Your task to perform on an android device: Open location settings Image 0: 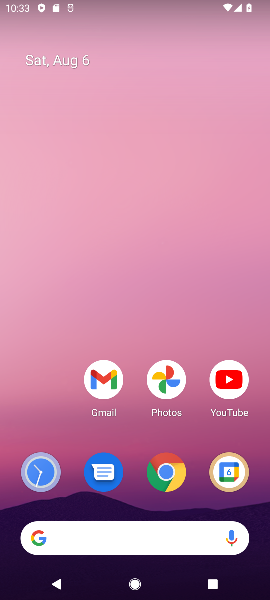
Step 0: drag from (163, 519) to (119, 103)
Your task to perform on an android device: Open location settings Image 1: 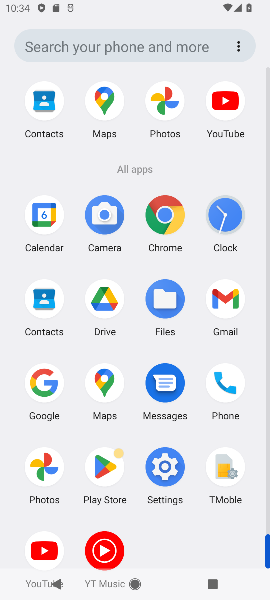
Step 1: click (166, 460)
Your task to perform on an android device: Open location settings Image 2: 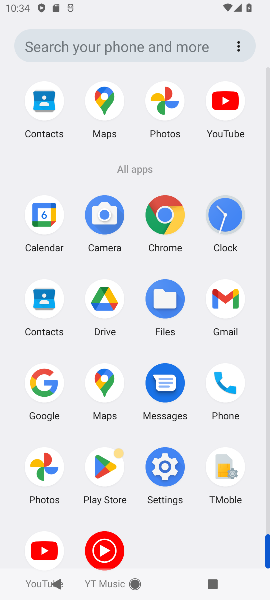
Step 2: click (164, 467)
Your task to perform on an android device: Open location settings Image 3: 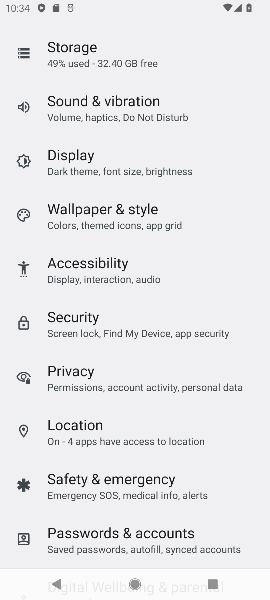
Step 3: click (81, 431)
Your task to perform on an android device: Open location settings Image 4: 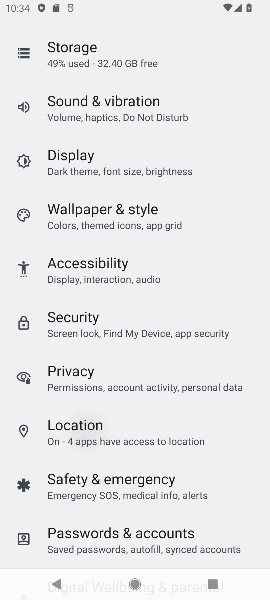
Step 4: click (81, 431)
Your task to perform on an android device: Open location settings Image 5: 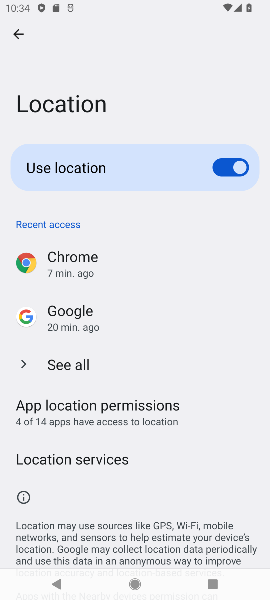
Step 5: click (81, 431)
Your task to perform on an android device: Open location settings Image 6: 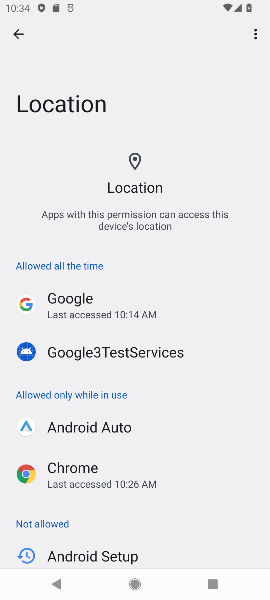
Step 6: click (18, 38)
Your task to perform on an android device: Open location settings Image 7: 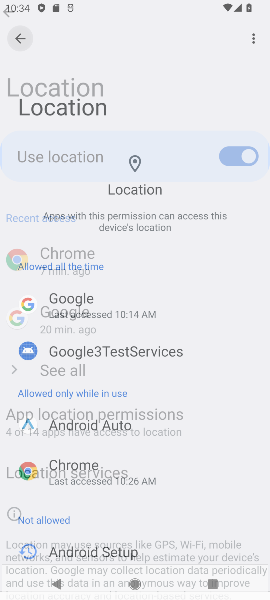
Step 7: task complete